Your task to perform on an android device: change alarm snooze length Image 0: 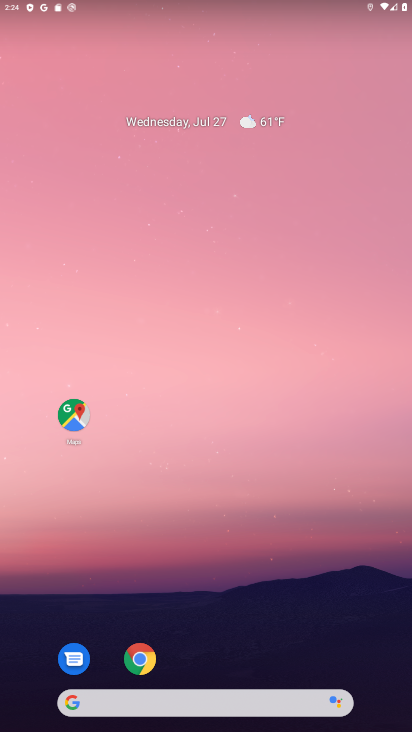
Step 0: drag from (189, 685) to (117, 236)
Your task to perform on an android device: change alarm snooze length Image 1: 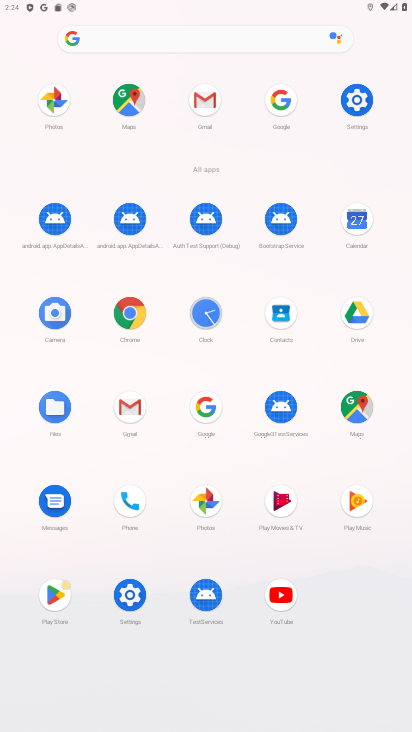
Step 1: click (204, 311)
Your task to perform on an android device: change alarm snooze length Image 2: 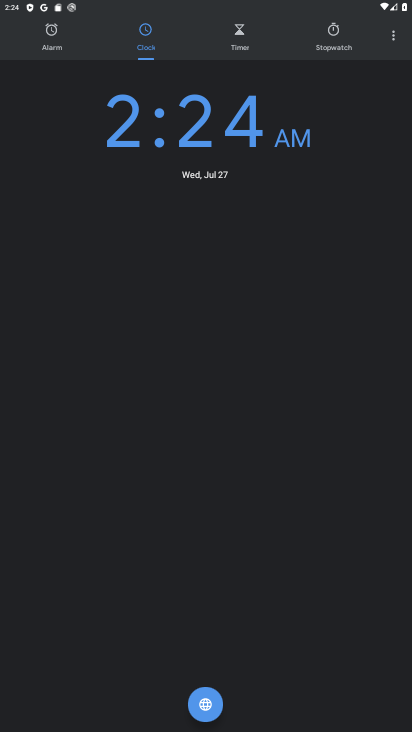
Step 2: click (388, 40)
Your task to perform on an android device: change alarm snooze length Image 3: 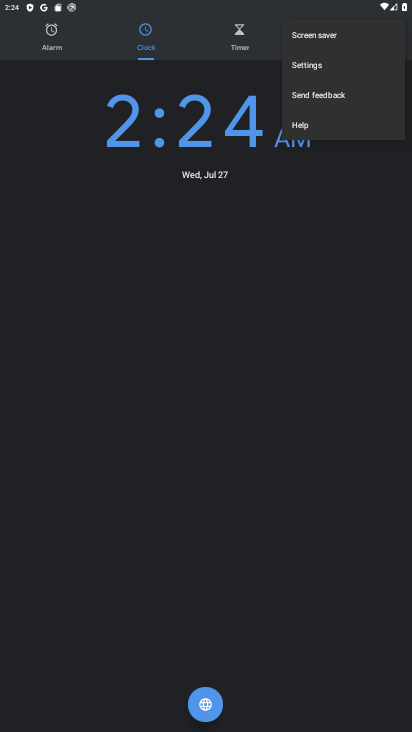
Step 3: click (317, 68)
Your task to perform on an android device: change alarm snooze length Image 4: 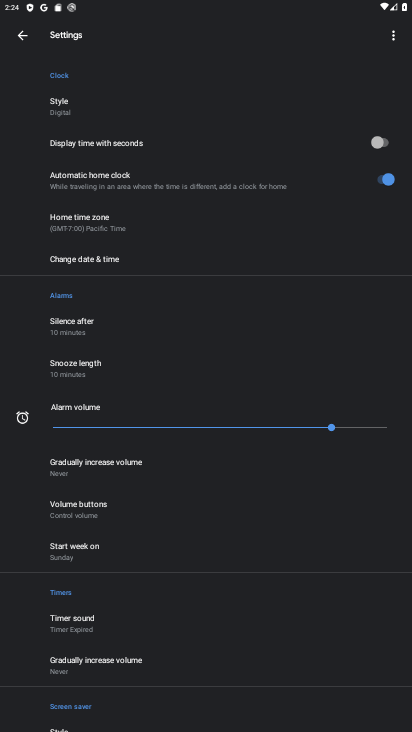
Step 4: click (85, 370)
Your task to perform on an android device: change alarm snooze length Image 5: 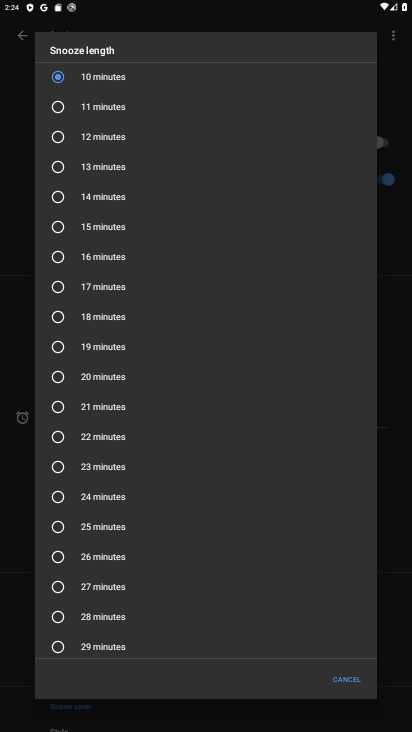
Step 5: click (97, 207)
Your task to perform on an android device: change alarm snooze length Image 6: 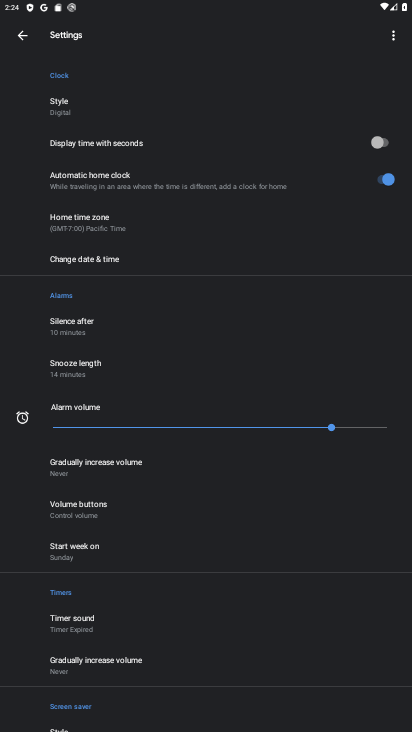
Step 6: task complete